Your task to perform on an android device: turn on notifications settings in the gmail app Image 0: 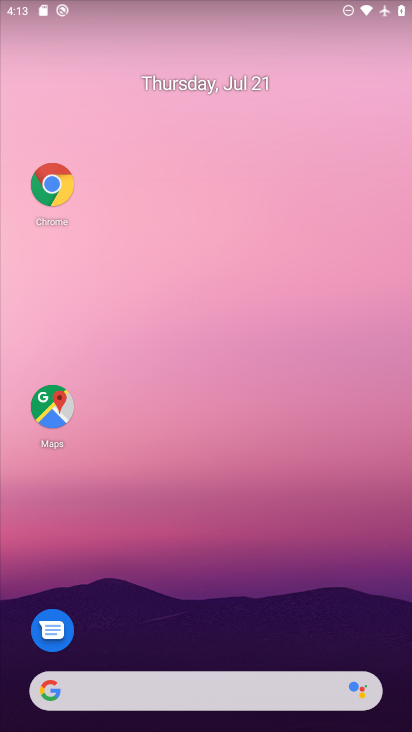
Step 0: drag from (194, 652) to (369, 56)
Your task to perform on an android device: turn on notifications settings in the gmail app Image 1: 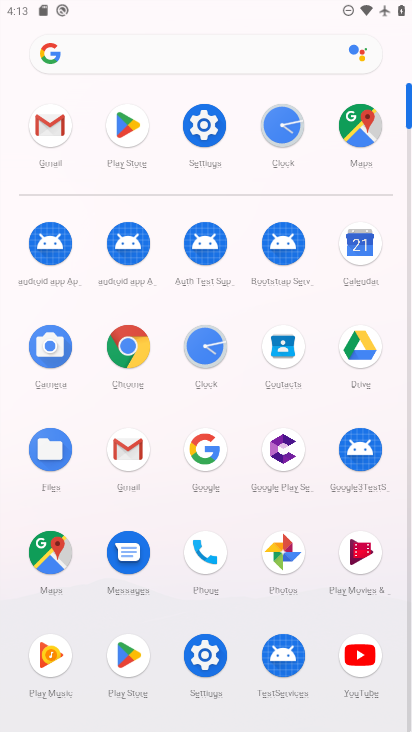
Step 1: click (127, 454)
Your task to perform on an android device: turn on notifications settings in the gmail app Image 2: 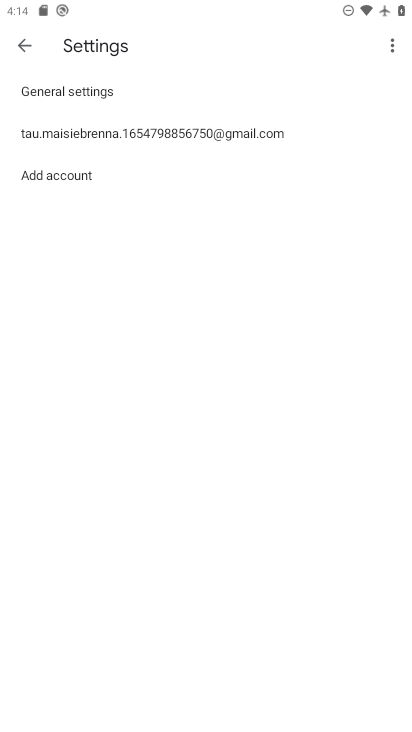
Step 2: click (81, 96)
Your task to perform on an android device: turn on notifications settings in the gmail app Image 3: 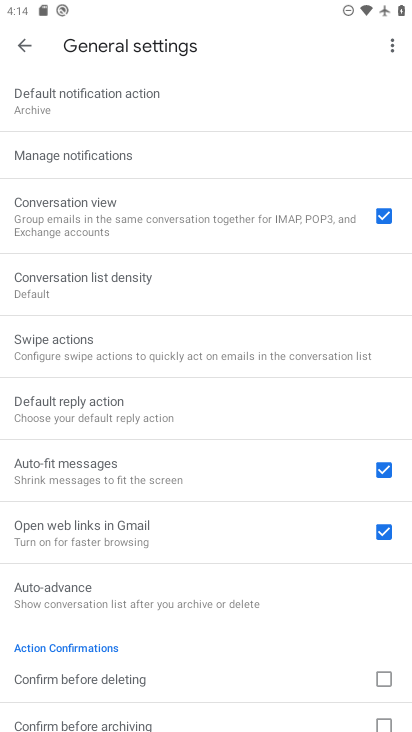
Step 3: click (110, 158)
Your task to perform on an android device: turn on notifications settings in the gmail app Image 4: 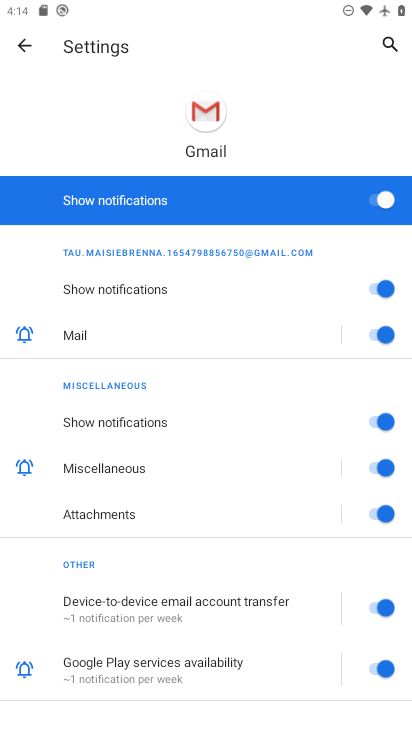
Step 4: task complete